Your task to perform on an android device: What's the weather today? Image 0: 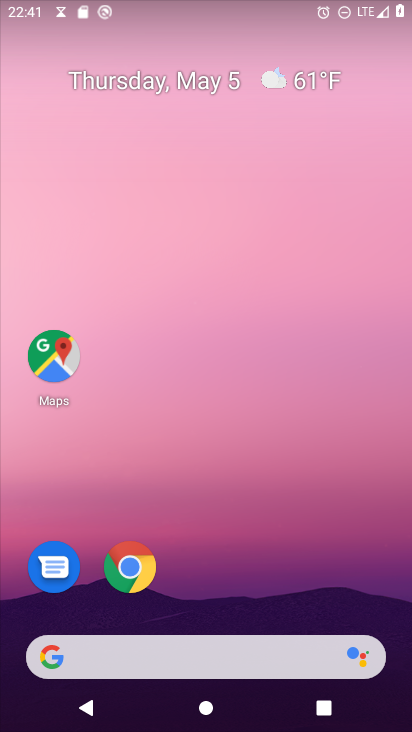
Step 0: click (275, 76)
Your task to perform on an android device: What's the weather today? Image 1: 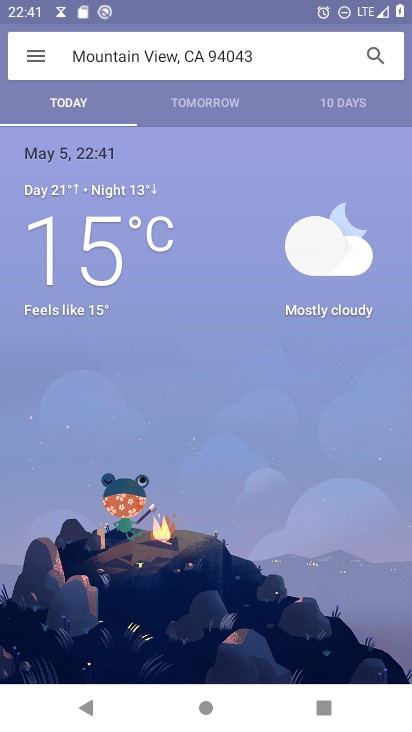
Step 1: task complete